Your task to perform on an android device: open app "Instagram" (install if not already installed) and go to login screen Image 0: 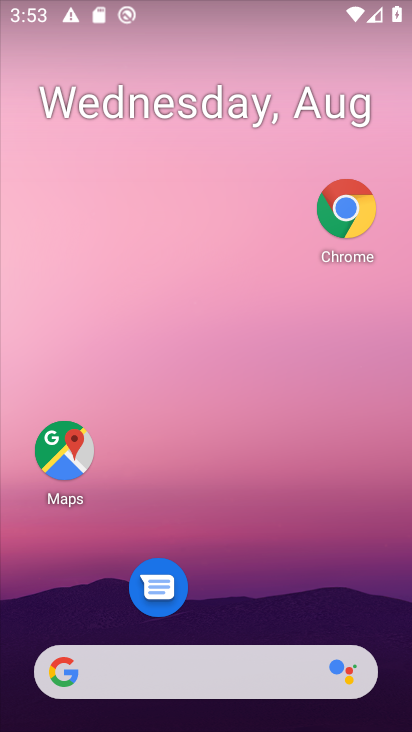
Step 0: press home button
Your task to perform on an android device: open app "Instagram" (install if not already installed) and go to login screen Image 1: 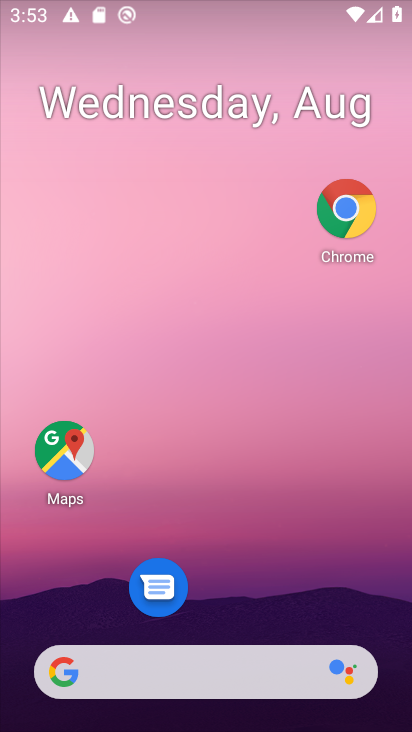
Step 1: drag from (242, 609) to (261, 56)
Your task to perform on an android device: open app "Instagram" (install if not already installed) and go to login screen Image 2: 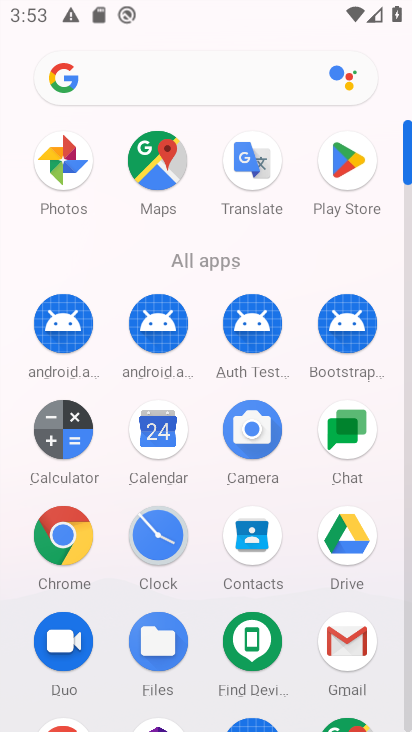
Step 2: click (343, 155)
Your task to perform on an android device: open app "Instagram" (install if not already installed) and go to login screen Image 3: 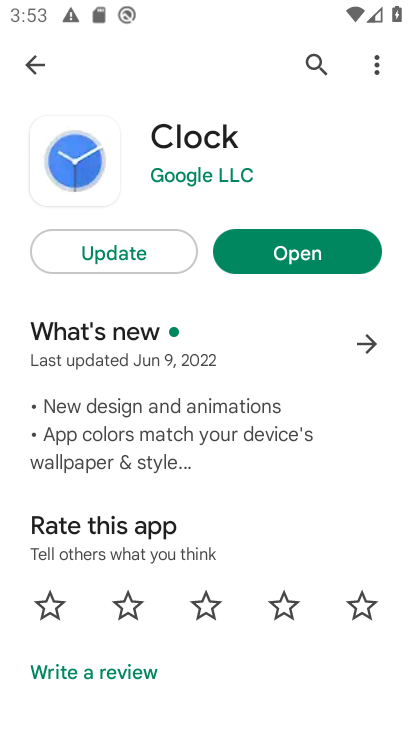
Step 3: click (311, 61)
Your task to perform on an android device: open app "Instagram" (install if not already installed) and go to login screen Image 4: 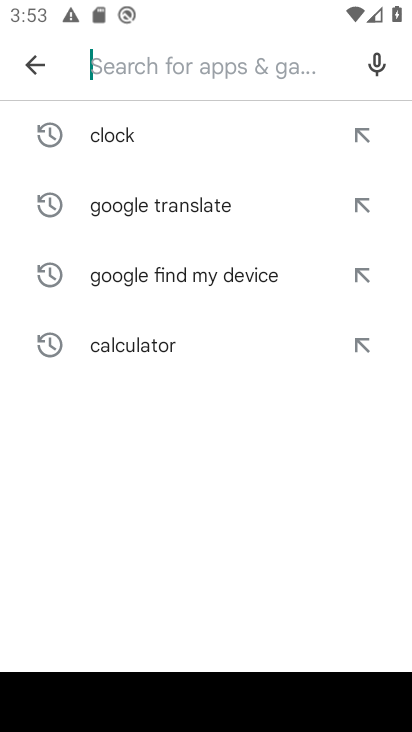
Step 4: type "Instagram"
Your task to perform on an android device: open app "Instagram" (install if not already installed) and go to login screen Image 5: 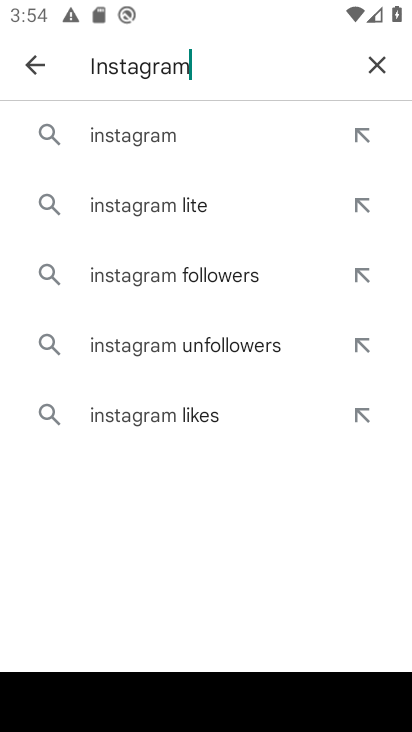
Step 5: click (192, 132)
Your task to perform on an android device: open app "Instagram" (install if not already installed) and go to login screen Image 6: 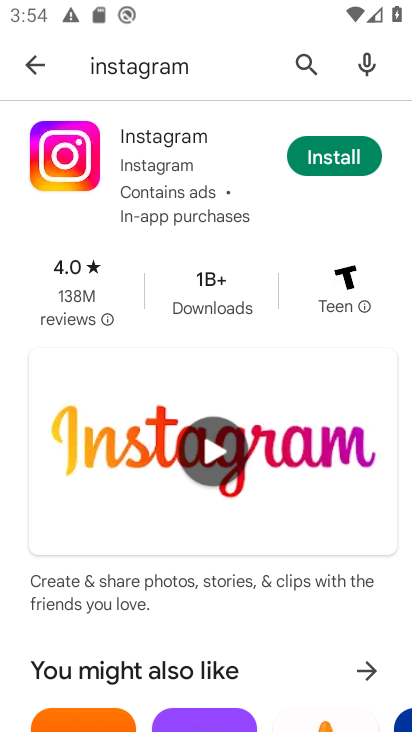
Step 6: click (332, 158)
Your task to perform on an android device: open app "Instagram" (install if not already installed) and go to login screen Image 7: 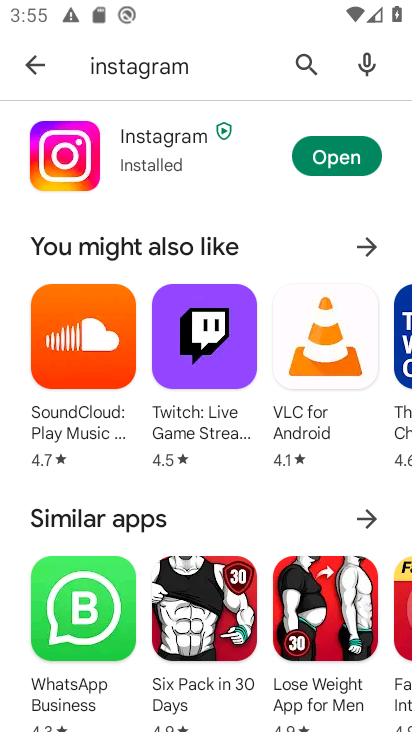
Step 7: click (342, 156)
Your task to perform on an android device: open app "Instagram" (install if not already installed) and go to login screen Image 8: 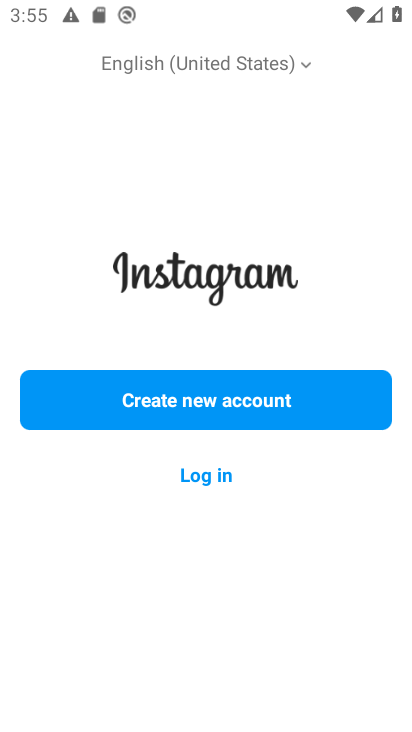
Step 8: click (196, 470)
Your task to perform on an android device: open app "Instagram" (install if not already installed) and go to login screen Image 9: 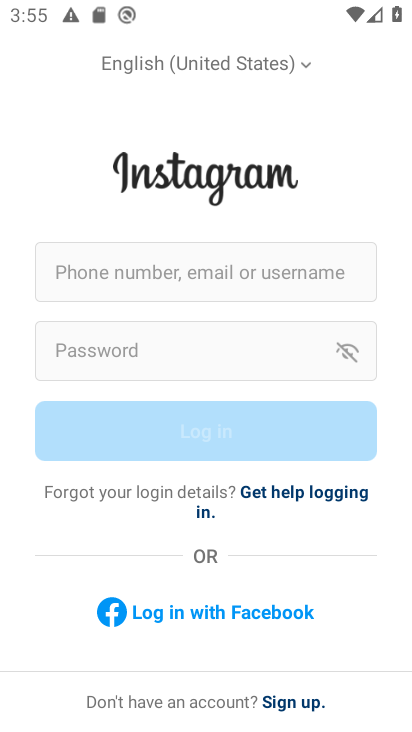
Step 9: task complete